Your task to perform on an android device: open app "Chime – Mobile Banking" (install if not already installed) and go to login screen Image 0: 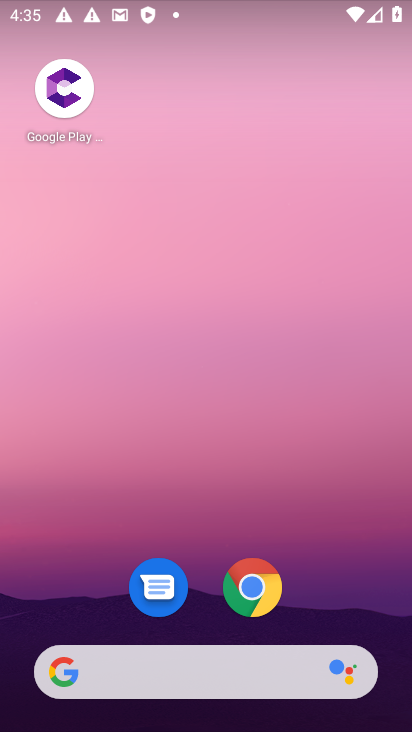
Step 0: press home button
Your task to perform on an android device: open app "Chime – Mobile Banking" (install if not already installed) and go to login screen Image 1: 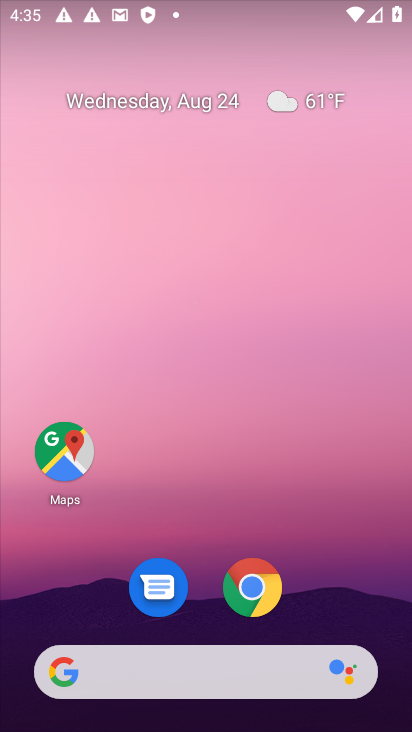
Step 1: drag from (150, 672) to (253, 1)
Your task to perform on an android device: open app "Chime – Mobile Banking" (install if not already installed) and go to login screen Image 2: 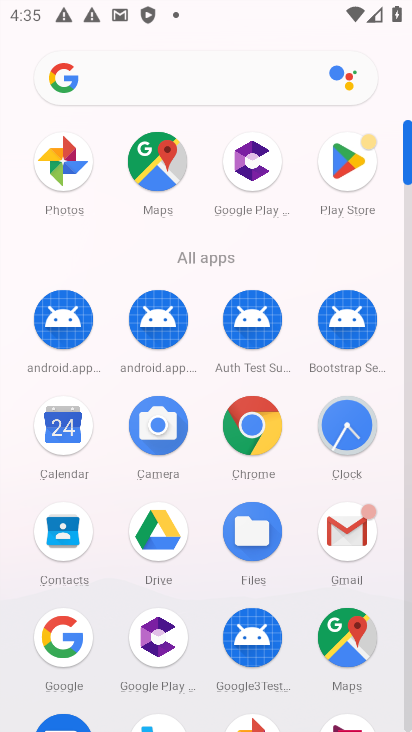
Step 2: click (347, 159)
Your task to perform on an android device: open app "Chime – Mobile Banking" (install if not already installed) and go to login screen Image 3: 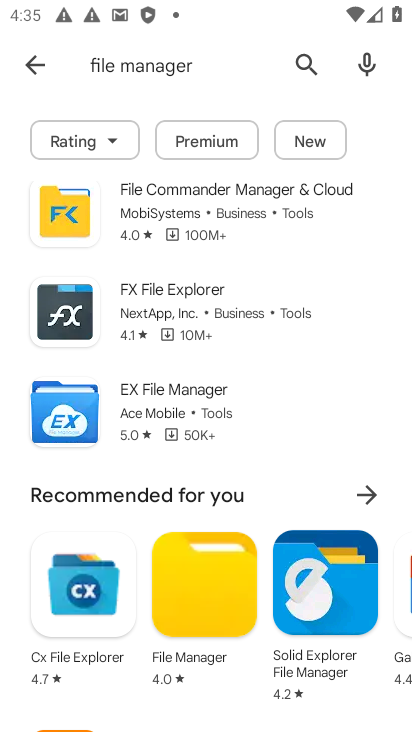
Step 3: press back button
Your task to perform on an android device: open app "Chime – Mobile Banking" (install if not already installed) and go to login screen Image 4: 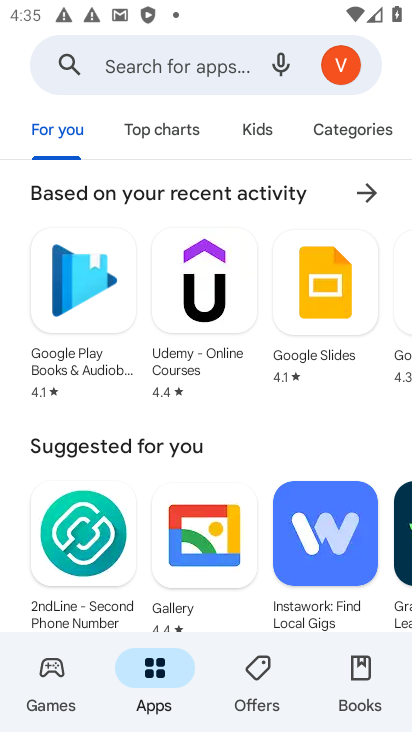
Step 4: click (209, 70)
Your task to perform on an android device: open app "Chime – Mobile Banking" (install if not already installed) and go to login screen Image 5: 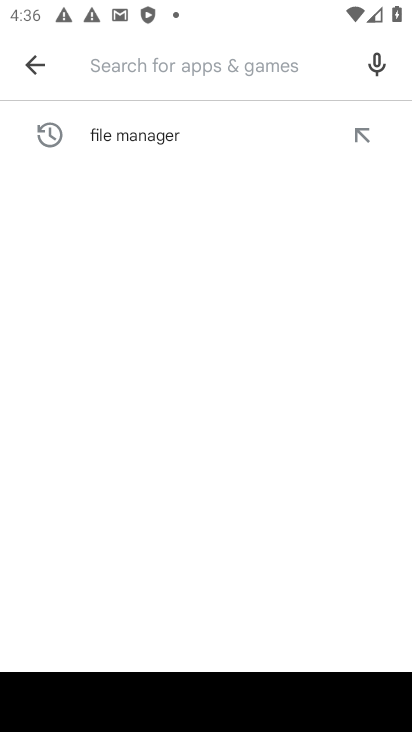
Step 5: type "Chime - Mobile Banking"
Your task to perform on an android device: open app "Chime – Mobile Banking" (install if not already installed) and go to login screen Image 6: 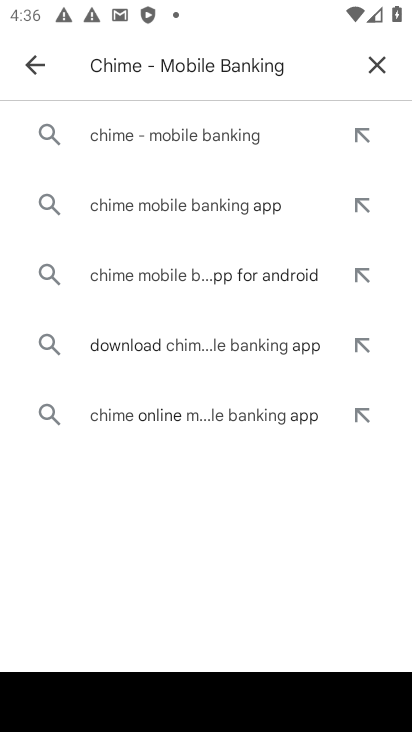
Step 6: click (187, 130)
Your task to perform on an android device: open app "Chime – Mobile Banking" (install if not already installed) and go to login screen Image 7: 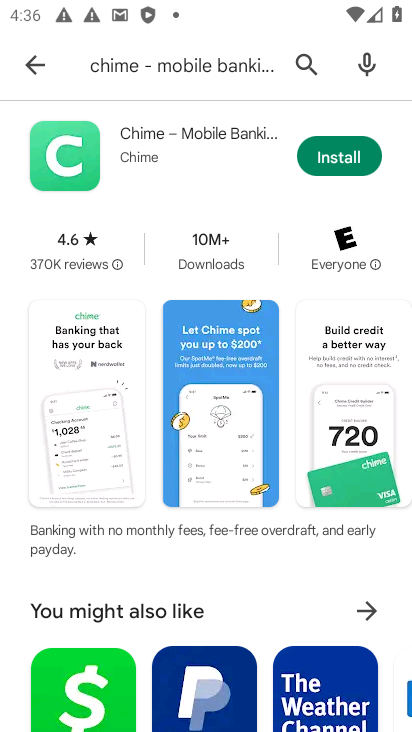
Step 7: click (327, 156)
Your task to perform on an android device: open app "Chime – Mobile Banking" (install if not already installed) and go to login screen Image 8: 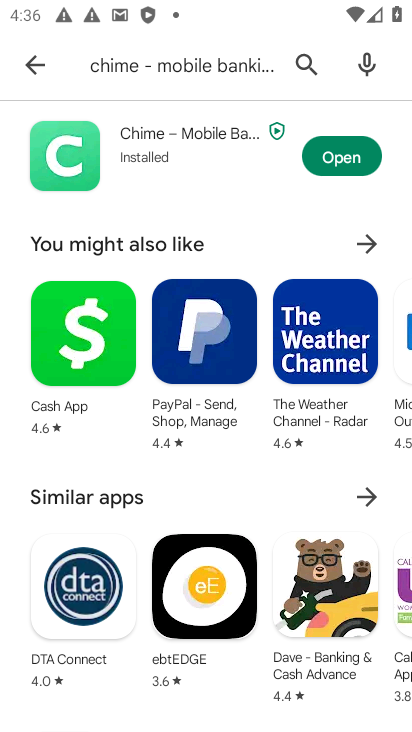
Step 8: click (342, 161)
Your task to perform on an android device: open app "Chime – Mobile Banking" (install if not already installed) and go to login screen Image 9: 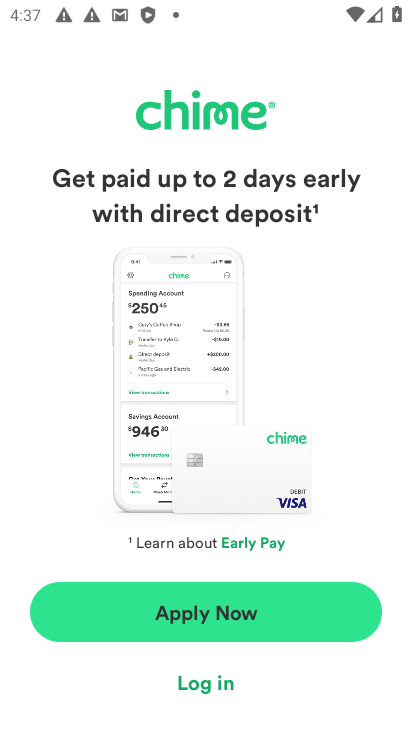
Step 9: click (211, 685)
Your task to perform on an android device: open app "Chime – Mobile Banking" (install if not already installed) and go to login screen Image 10: 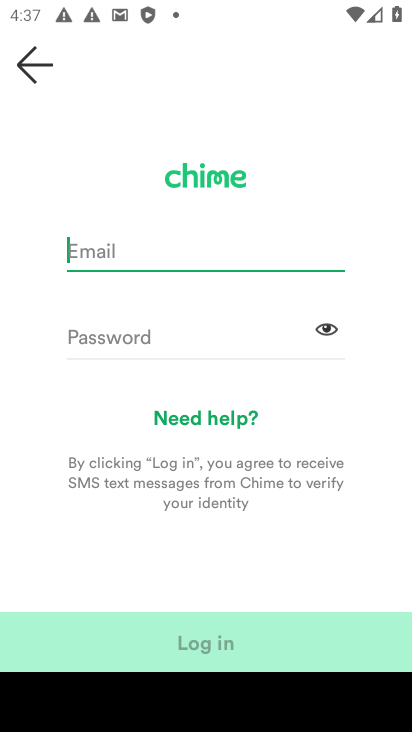
Step 10: task complete